Your task to perform on an android device: Open Wikipedia Image 0: 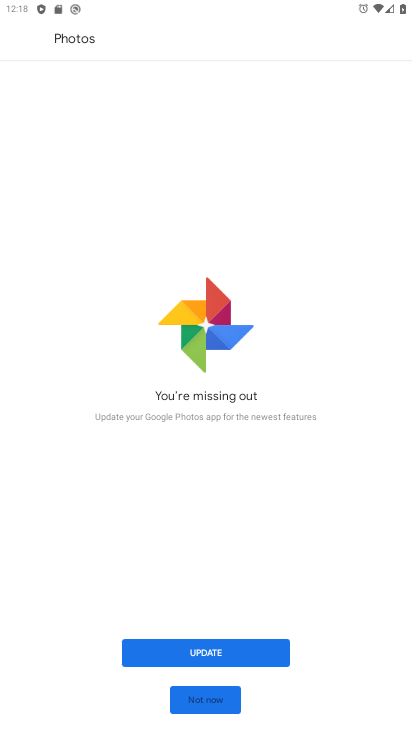
Step 0: press home button
Your task to perform on an android device: Open Wikipedia Image 1: 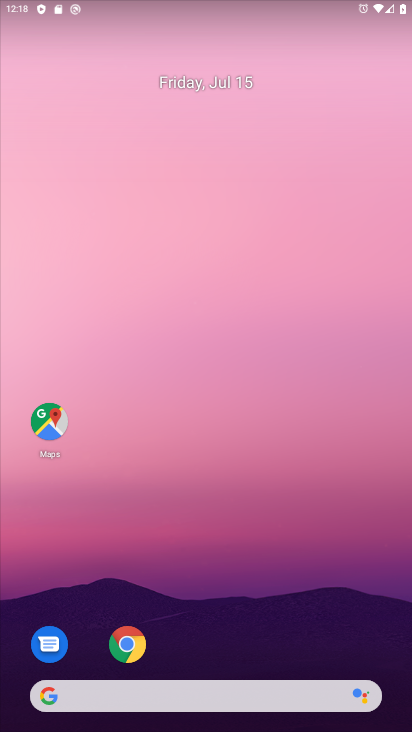
Step 1: click (132, 648)
Your task to perform on an android device: Open Wikipedia Image 2: 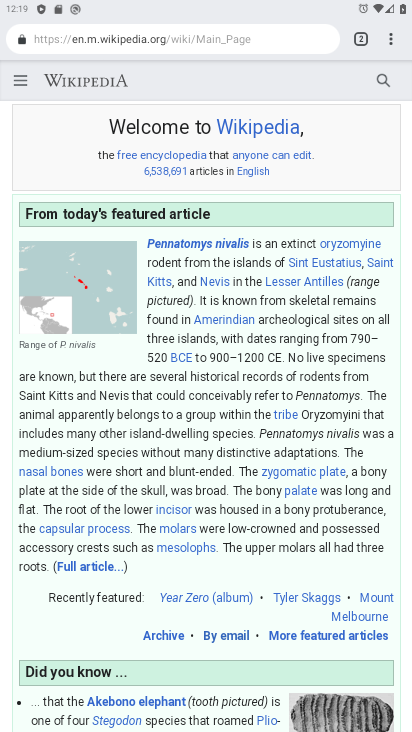
Step 2: task complete